Your task to perform on an android device: toggle show notifications on the lock screen Image 0: 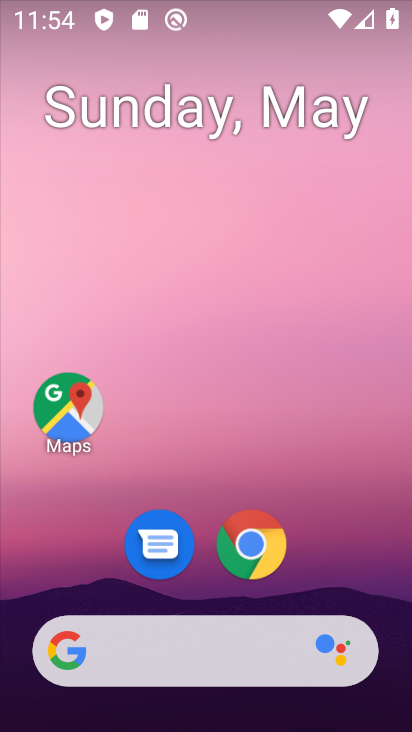
Step 0: drag from (341, 609) to (282, 3)
Your task to perform on an android device: toggle show notifications on the lock screen Image 1: 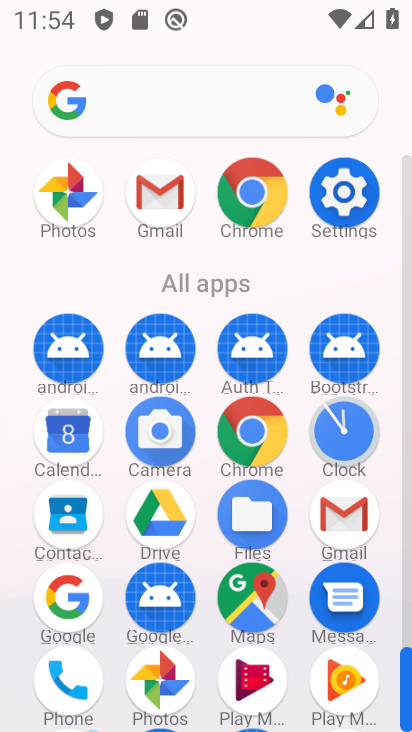
Step 1: click (345, 188)
Your task to perform on an android device: toggle show notifications on the lock screen Image 2: 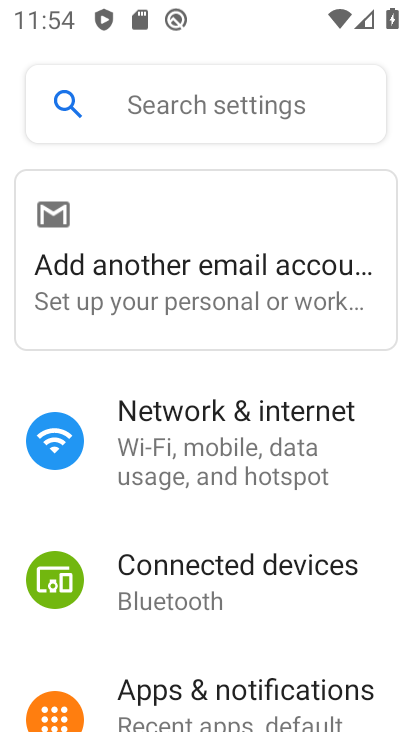
Step 2: click (303, 684)
Your task to perform on an android device: toggle show notifications on the lock screen Image 3: 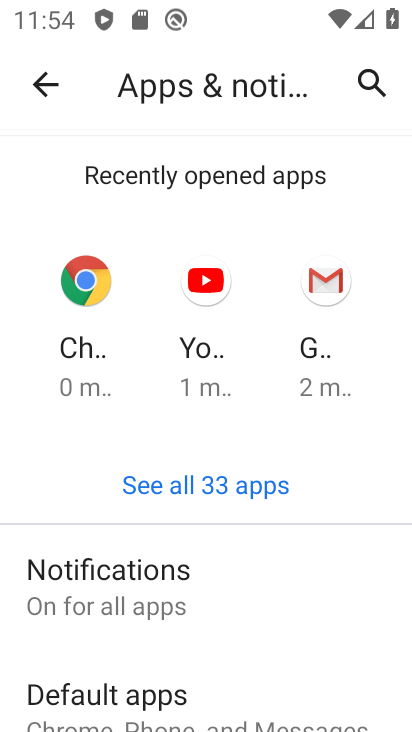
Step 3: drag from (236, 703) to (228, 115)
Your task to perform on an android device: toggle show notifications on the lock screen Image 4: 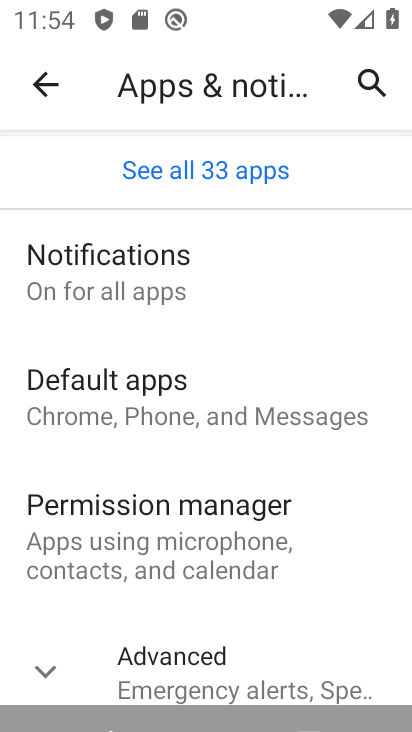
Step 4: click (199, 291)
Your task to perform on an android device: toggle show notifications on the lock screen Image 5: 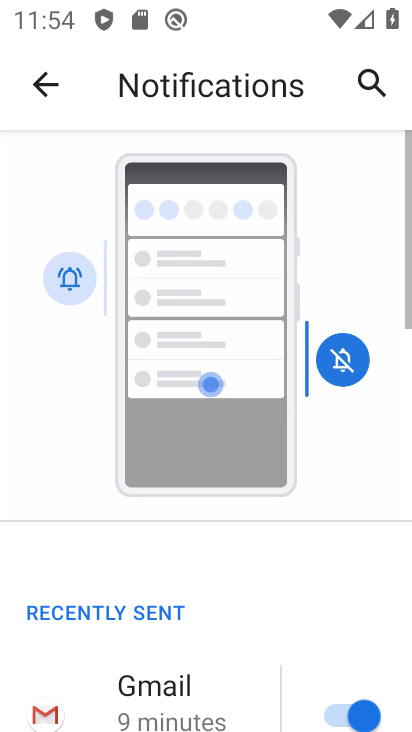
Step 5: drag from (294, 658) to (273, 45)
Your task to perform on an android device: toggle show notifications on the lock screen Image 6: 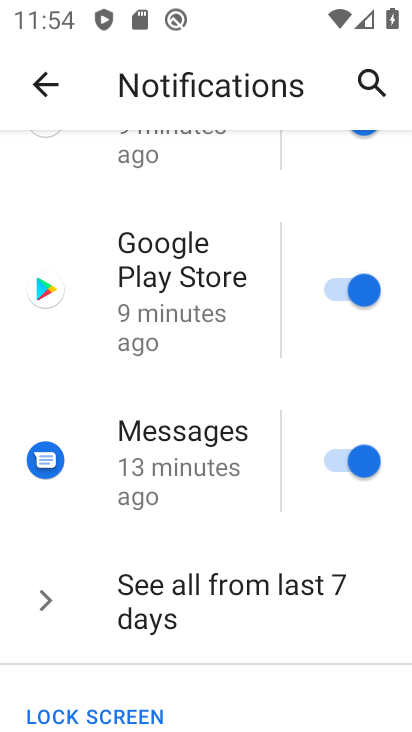
Step 6: drag from (286, 661) to (217, 176)
Your task to perform on an android device: toggle show notifications on the lock screen Image 7: 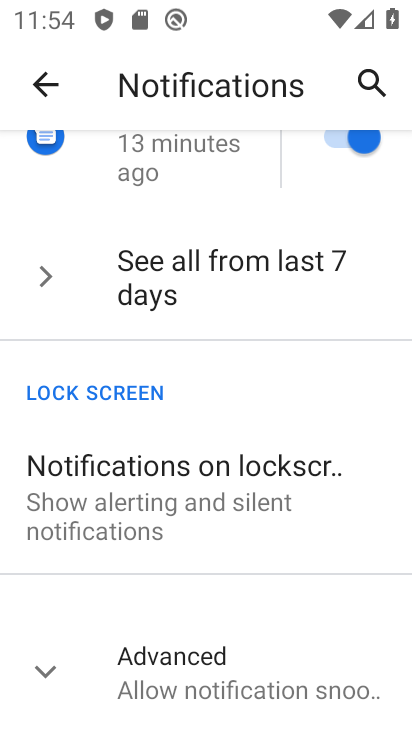
Step 7: click (284, 490)
Your task to perform on an android device: toggle show notifications on the lock screen Image 8: 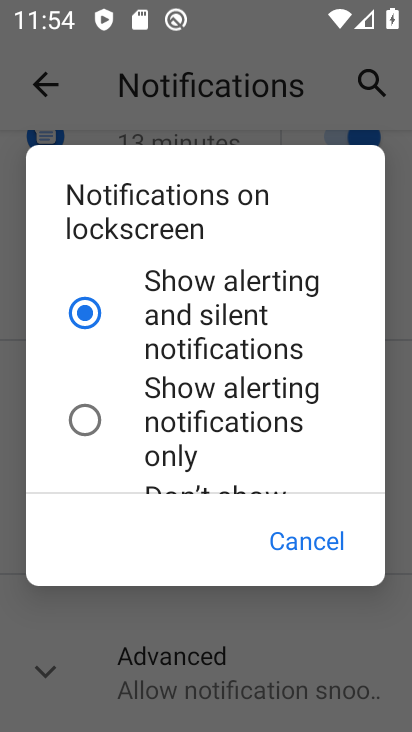
Step 8: click (87, 414)
Your task to perform on an android device: toggle show notifications on the lock screen Image 9: 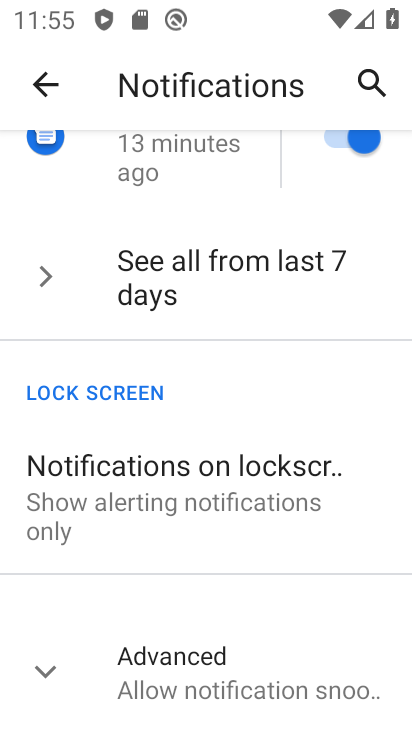
Step 9: task complete